Your task to perform on an android device: change text size in settings app Image 0: 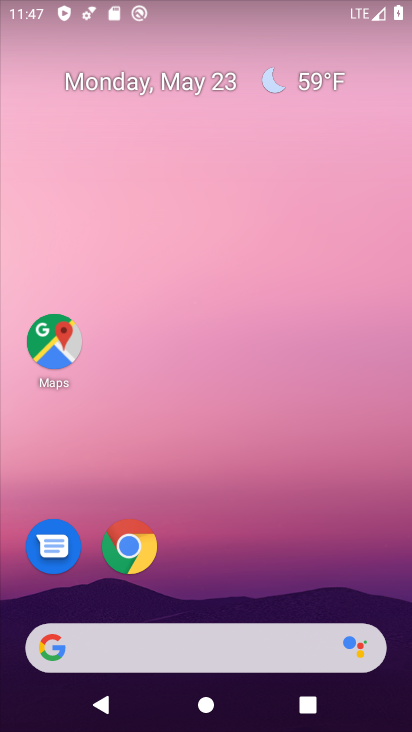
Step 0: drag from (408, 233) to (411, 119)
Your task to perform on an android device: change text size in settings app Image 1: 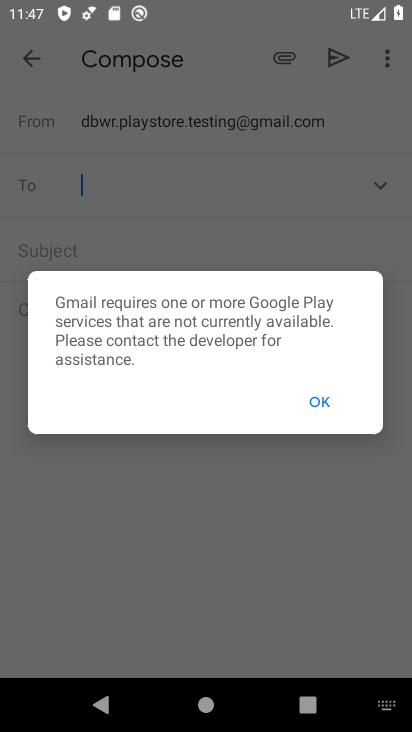
Step 1: press home button
Your task to perform on an android device: change text size in settings app Image 2: 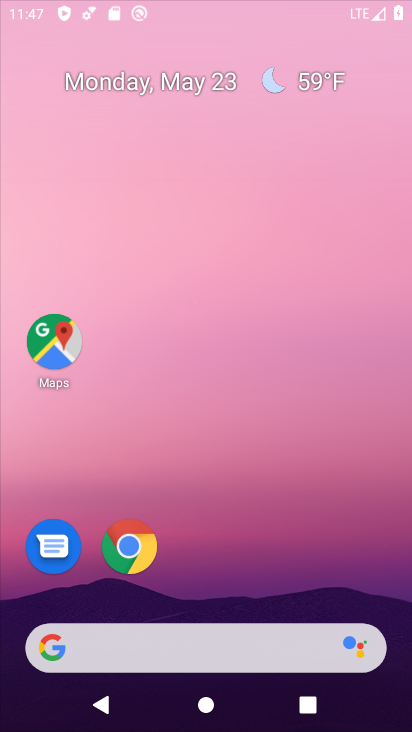
Step 2: drag from (301, 679) to (223, 213)
Your task to perform on an android device: change text size in settings app Image 3: 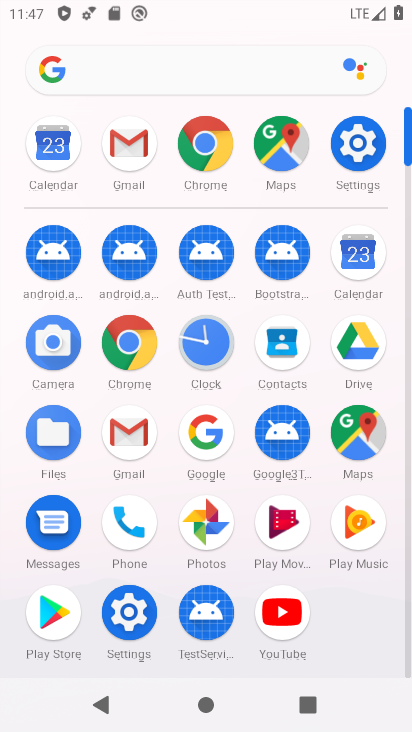
Step 3: click (349, 146)
Your task to perform on an android device: change text size in settings app Image 4: 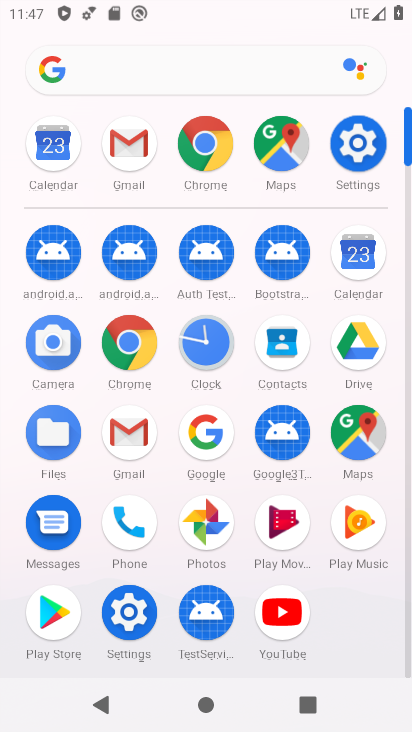
Step 4: click (349, 146)
Your task to perform on an android device: change text size in settings app Image 5: 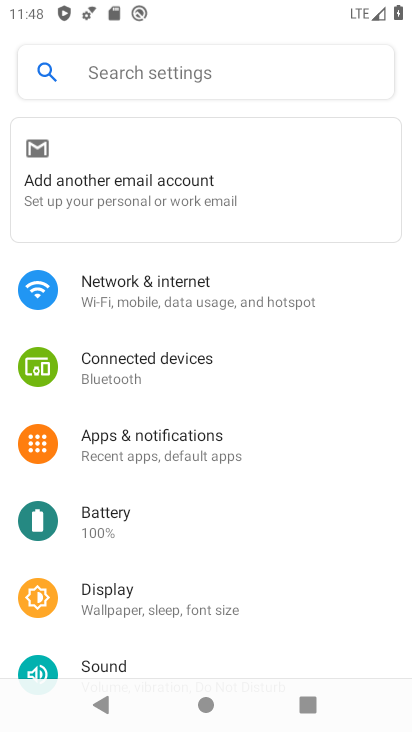
Step 5: click (166, 585)
Your task to perform on an android device: change text size in settings app Image 6: 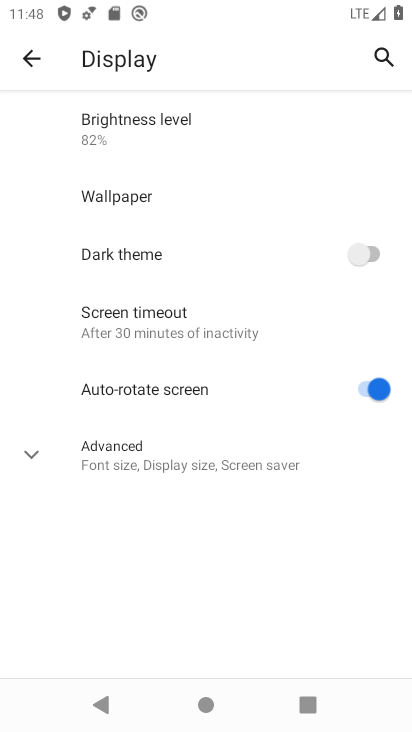
Step 6: drag from (174, 531) to (192, 296)
Your task to perform on an android device: change text size in settings app Image 7: 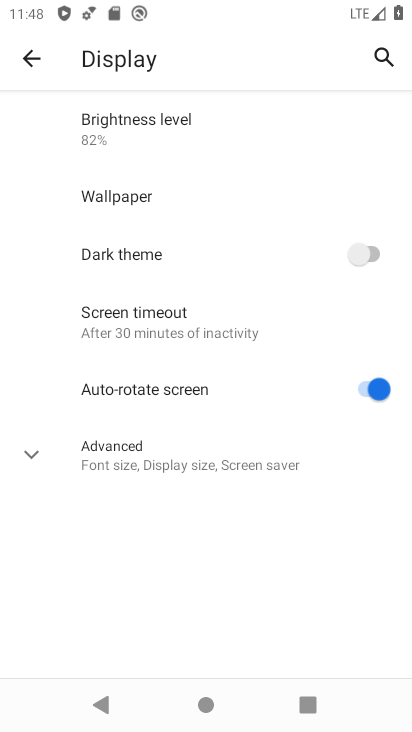
Step 7: click (128, 472)
Your task to perform on an android device: change text size in settings app Image 8: 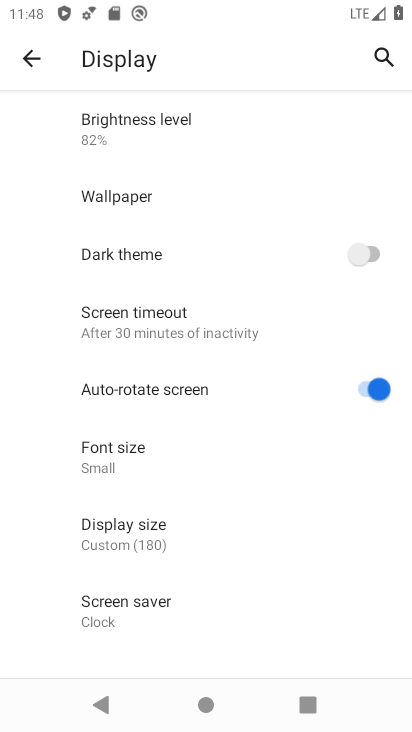
Step 8: drag from (155, 603) to (163, 556)
Your task to perform on an android device: change text size in settings app Image 9: 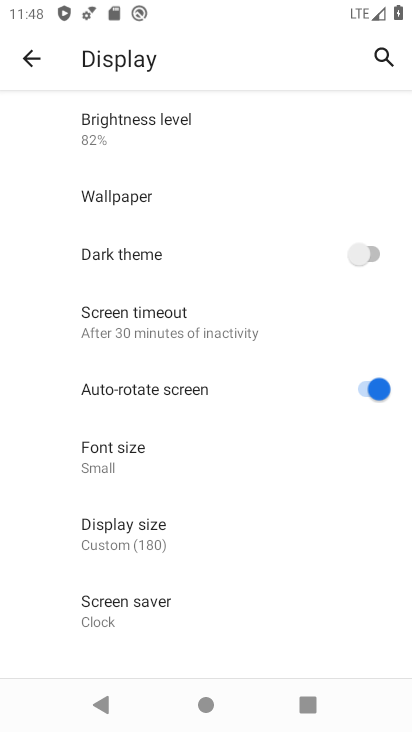
Step 9: click (141, 450)
Your task to perform on an android device: change text size in settings app Image 10: 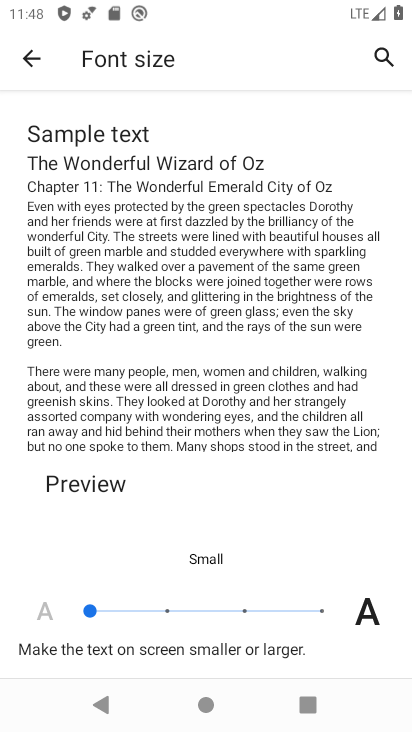
Step 10: task complete